Your task to perform on an android device: change timer sound Image 0: 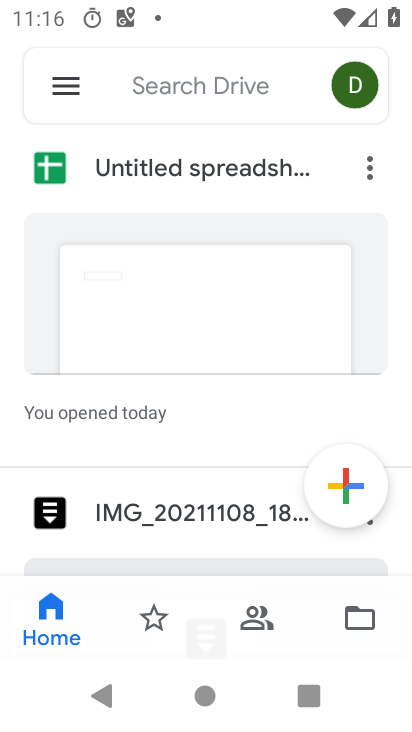
Step 0: press home button
Your task to perform on an android device: change timer sound Image 1: 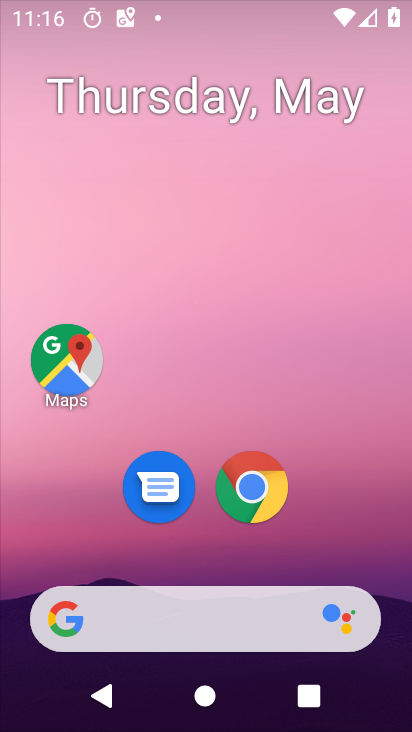
Step 1: drag from (320, 494) to (252, 71)
Your task to perform on an android device: change timer sound Image 2: 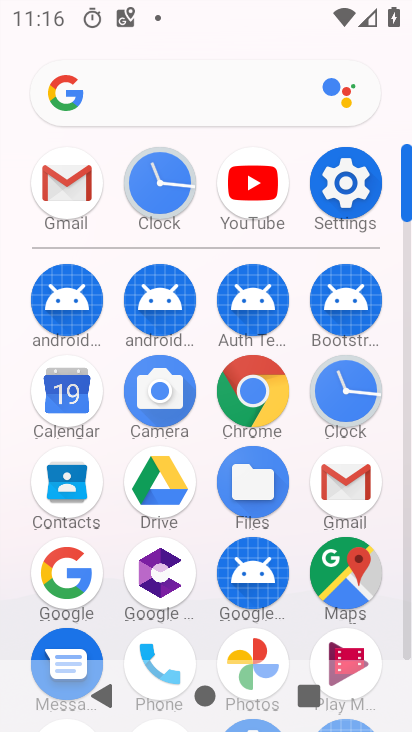
Step 2: click (349, 395)
Your task to perform on an android device: change timer sound Image 3: 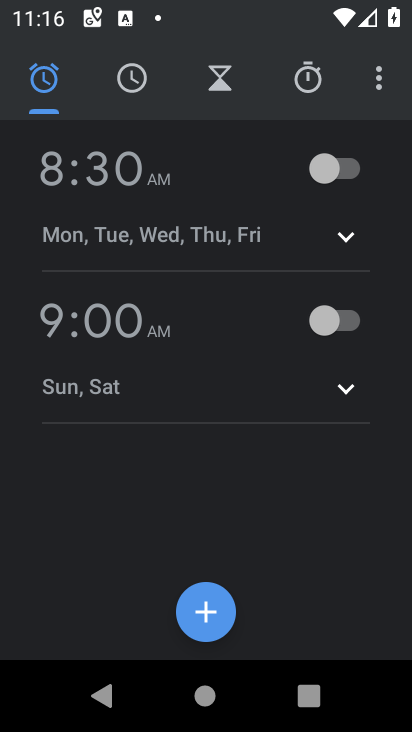
Step 3: click (387, 72)
Your task to perform on an android device: change timer sound Image 4: 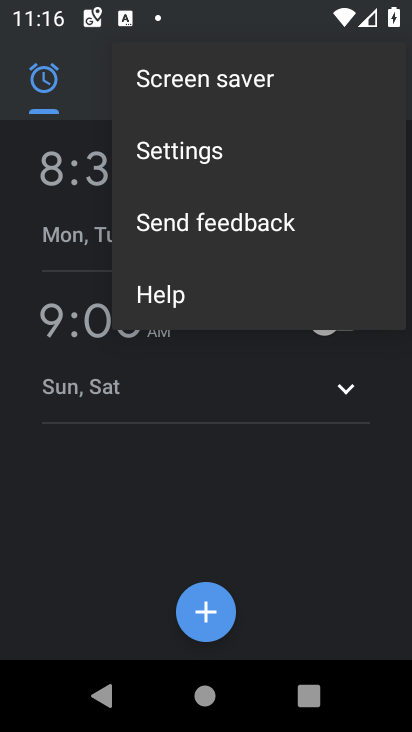
Step 4: click (198, 156)
Your task to perform on an android device: change timer sound Image 5: 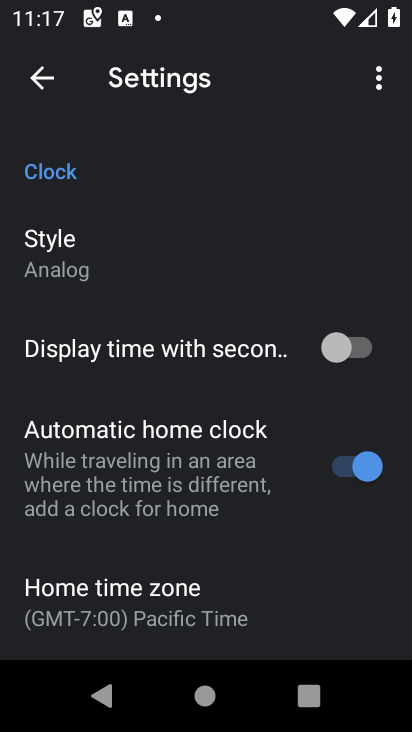
Step 5: drag from (299, 499) to (257, 183)
Your task to perform on an android device: change timer sound Image 6: 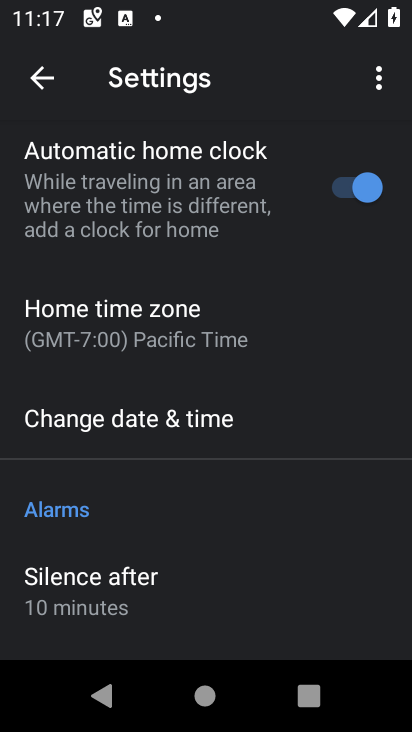
Step 6: drag from (237, 567) to (283, 172)
Your task to perform on an android device: change timer sound Image 7: 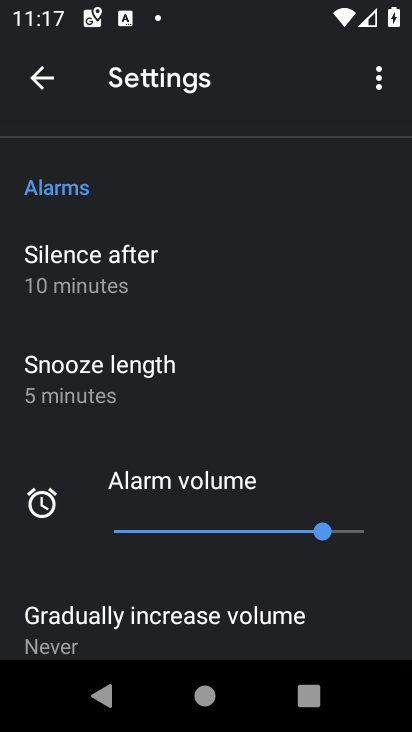
Step 7: drag from (242, 576) to (256, 121)
Your task to perform on an android device: change timer sound Image 8: 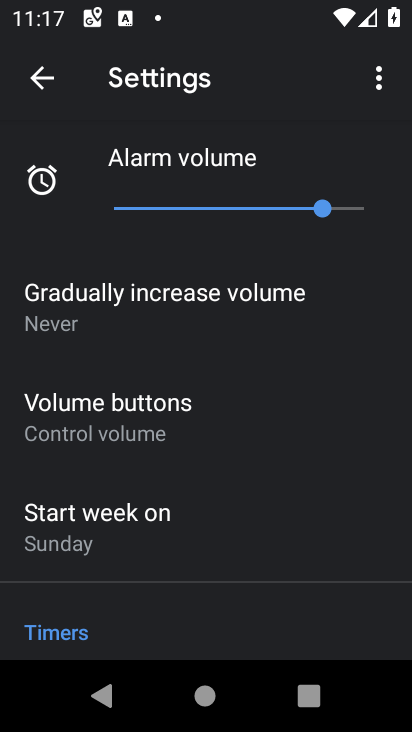
Step 8: drag from (239, 516) to (251, 138)
Your task to perform on an android device: change timer sound Image 9: 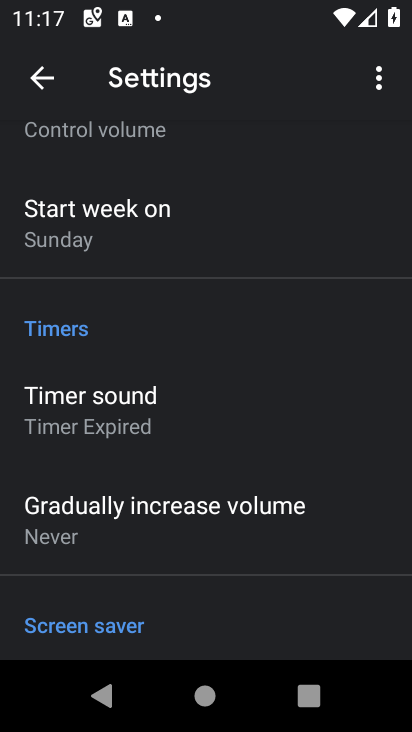
Step 9: click (139, 431)
Your task to perform on an android device: change timer sound Image 10: 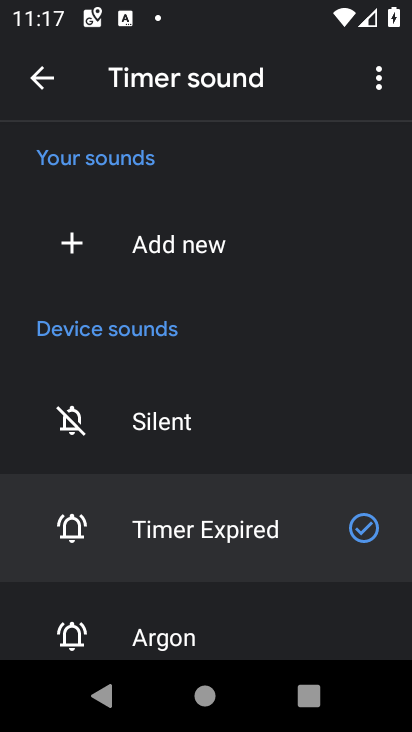
Step 10: click (247, 629)
Your task to perform on an android device: change timer sound Image 11: 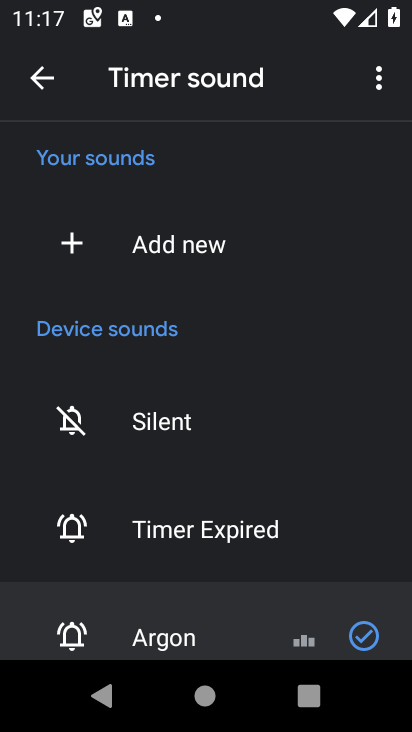
Step 11: task complete